Your task to perform on an android device: Find coffee shops on Maps Image 0: 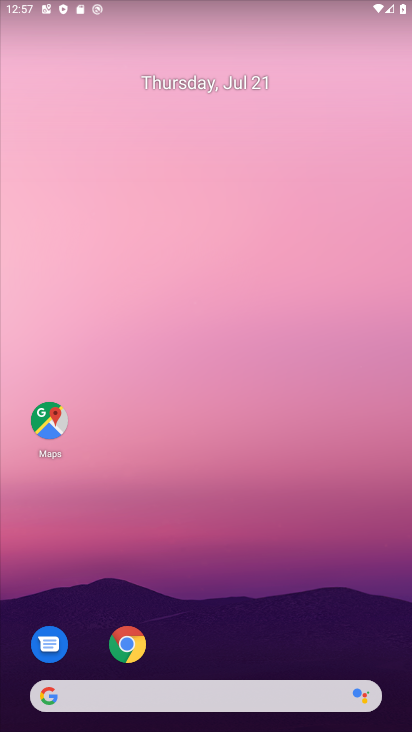
Step 0: drag from (220, 661) to (185, 178)
Your task to perform on an android device: Find coffee shops on Maps Image 1: 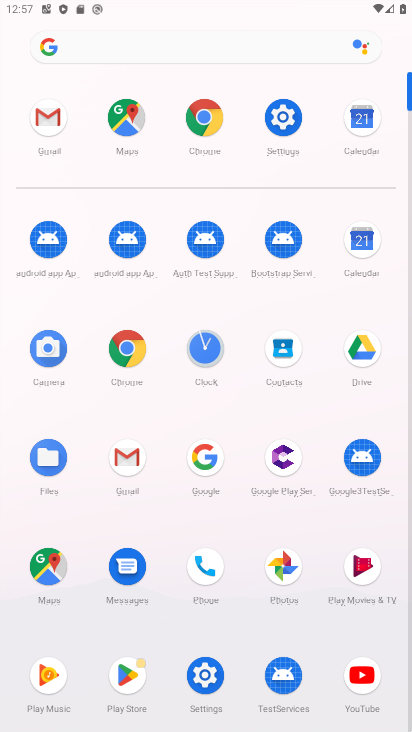
Step 1: click (48, 557)
Your task to perform on an android device: Find coffee shops on Maps Image 2: 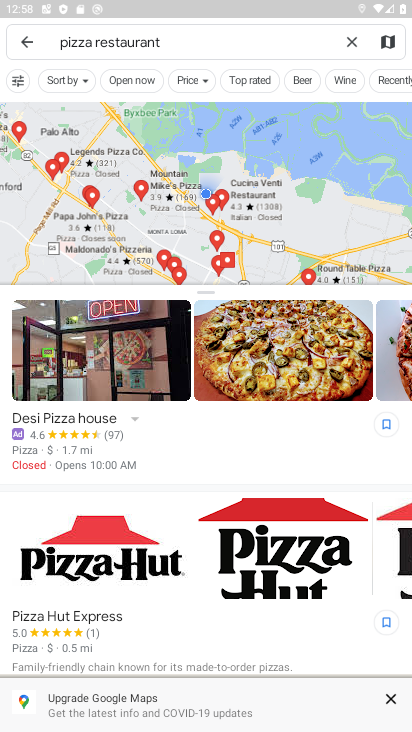
Step 2: click (346, 38)
Your task to perform on an android device: Find coffee shops on Maps Image 3: 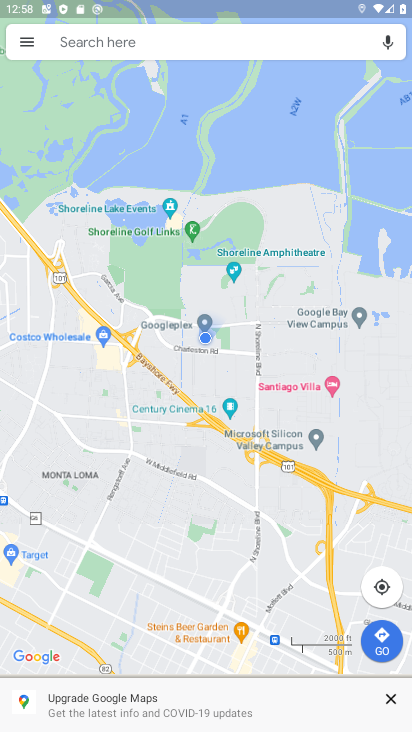
Step 3: click (250, 48)
Your task to perform on an android device: Find coffee shops on Maps Image 4: 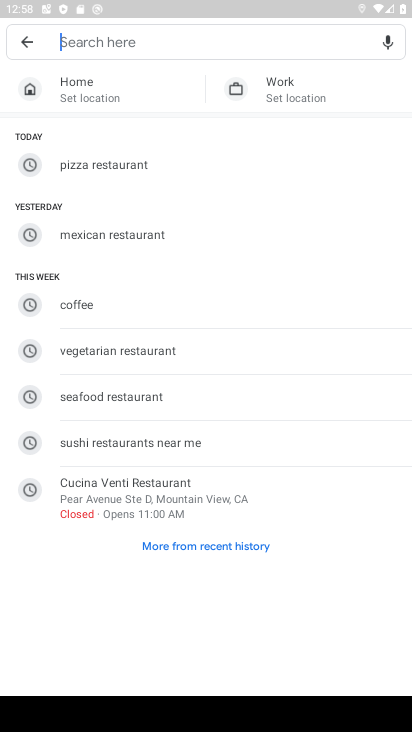
Step 4: click (81, 299)
Your task to perform on an android device: Find coffee shops on Maps Image 5: 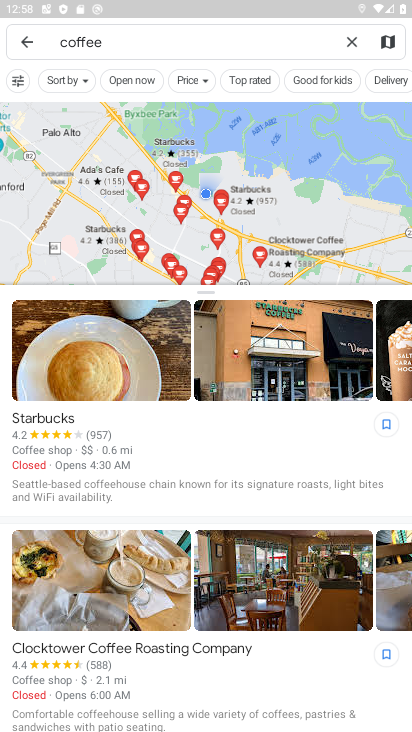
Step 5: task complete